Your task to perform on an android device: check out phone information Image 0: 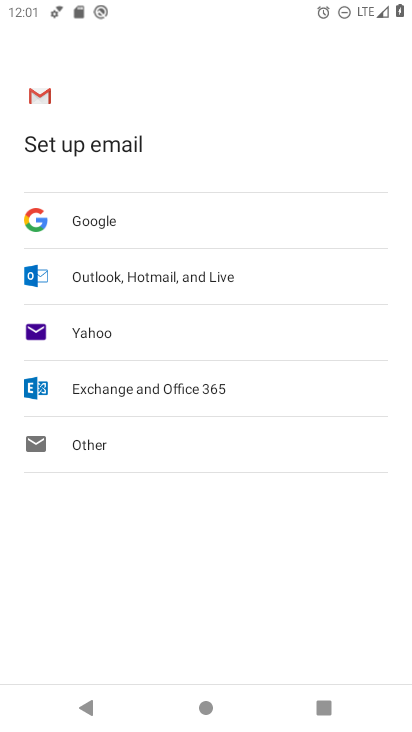
Step 0: press home button
Your task to perform on an android device: check out phone information Image 1: 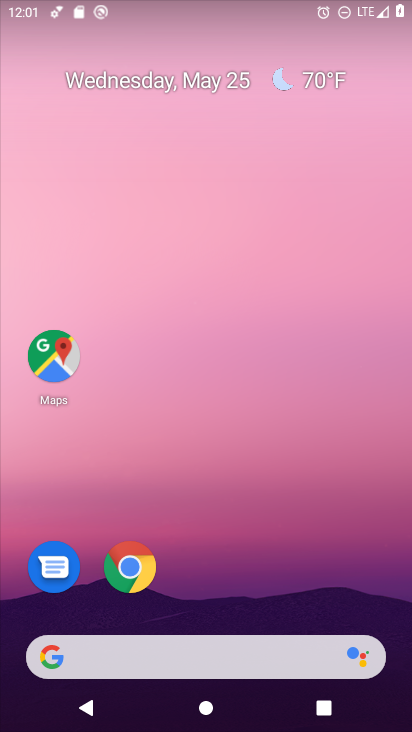
Step 1: drag from (383, 608) to (364, 237)
Your task to perform on an android device: check out phone information Image 2: 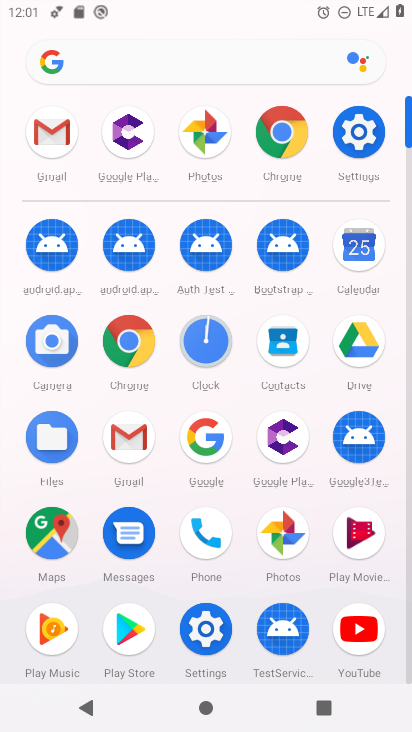
Step 2: click (353, 136)
Your task to perform on an android device: check out phone information Image 3: 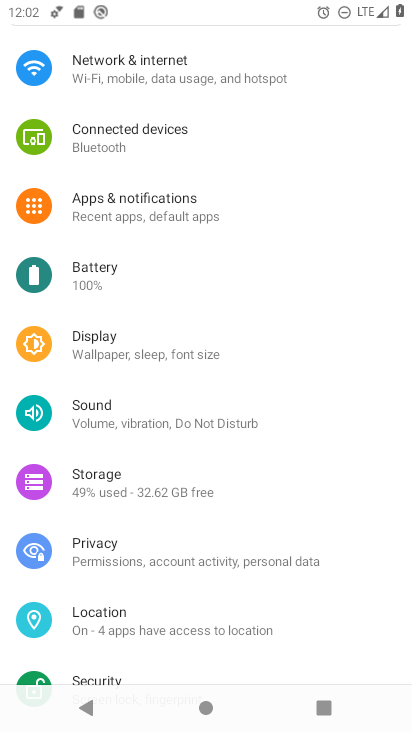
Step 3: drag from (303, 662) to (267, 300)
Your task to perform on an android device: check out phone information Image 4: 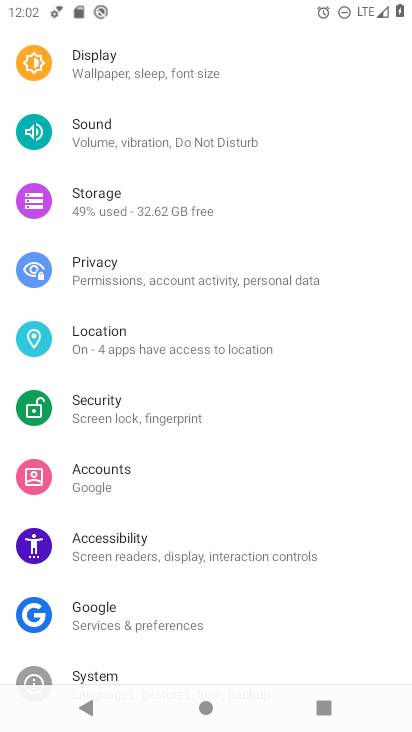
Step 4: drag from (292, 662) to (281, 330)
Your task to perform on an android device: check out phone information Image 5: 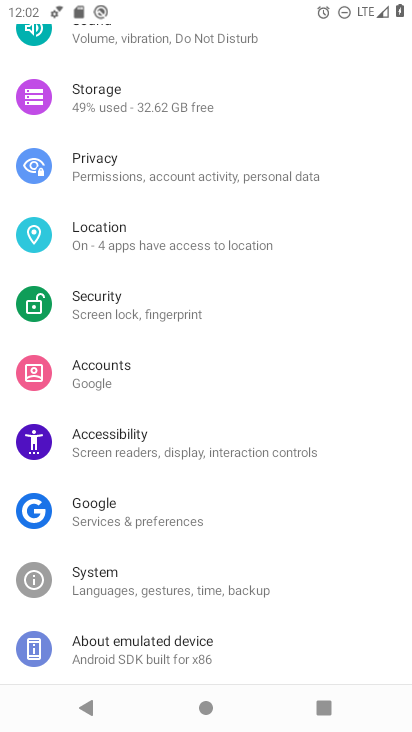
Step 5: click (145, 654)
Your task to perform on an android device: check out phone information Image 6: 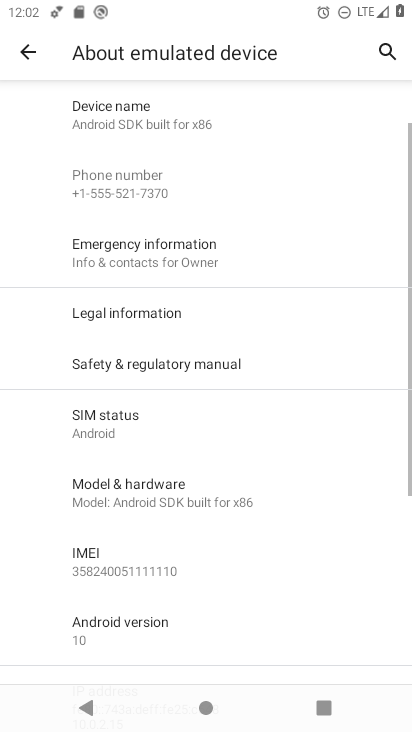
Step 6: click (136, 256)
Your task to perform on an android device: check out phone information Image 7: 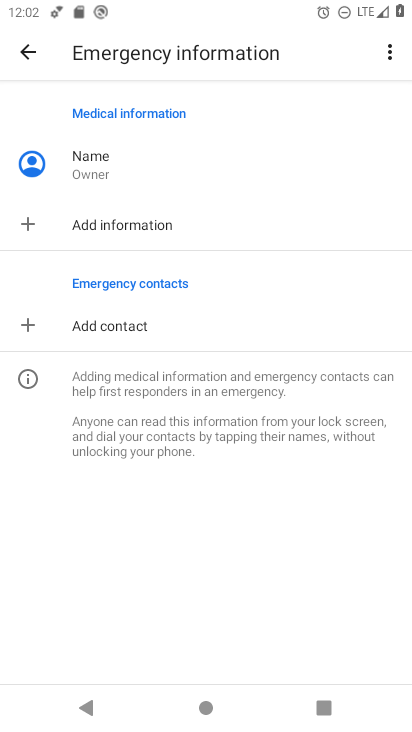
Step 7: task complete